Your task to perform on an android device: toggle notifications settings in the gmail app Image 0: 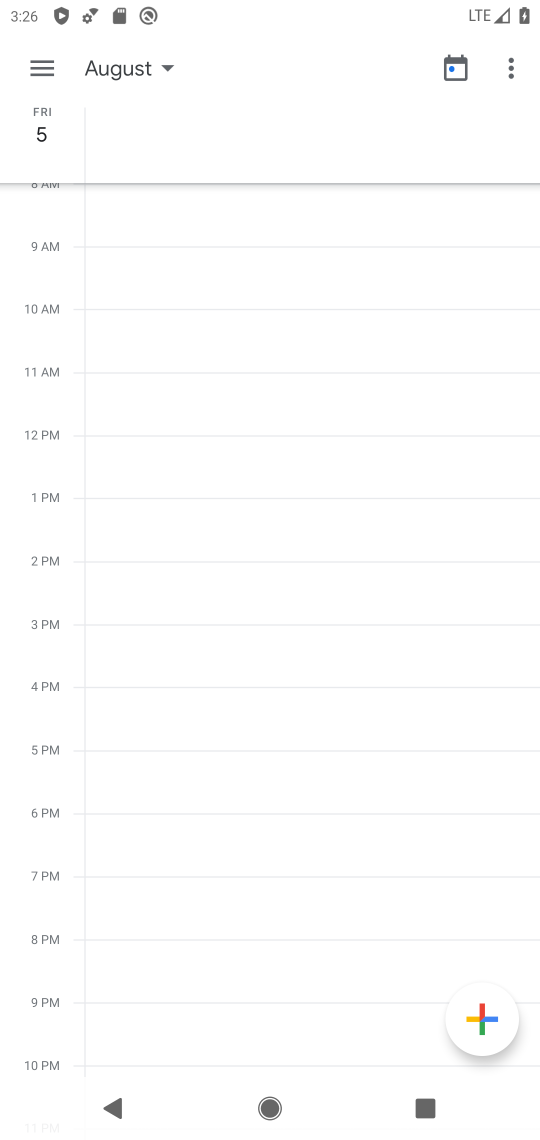
Step 0: press home button
Your task to perform on an android device: toggle notifications settings in the gmail app Image 1: 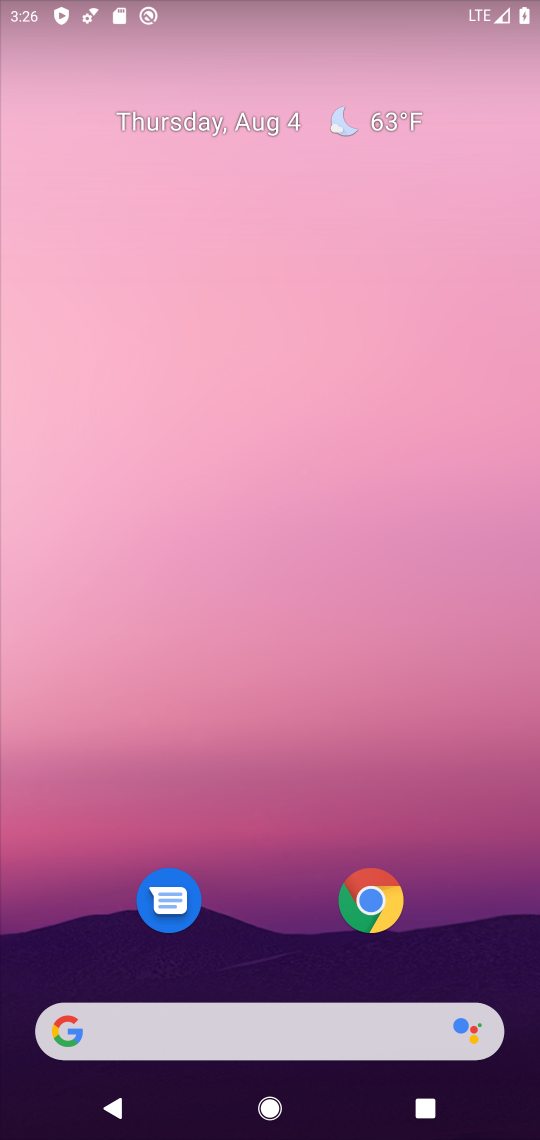
Step 1: drag from (483, 942) to (399, 4)
Your task to perform on an android device: toggle notifications settings in the gmail app Image 2: 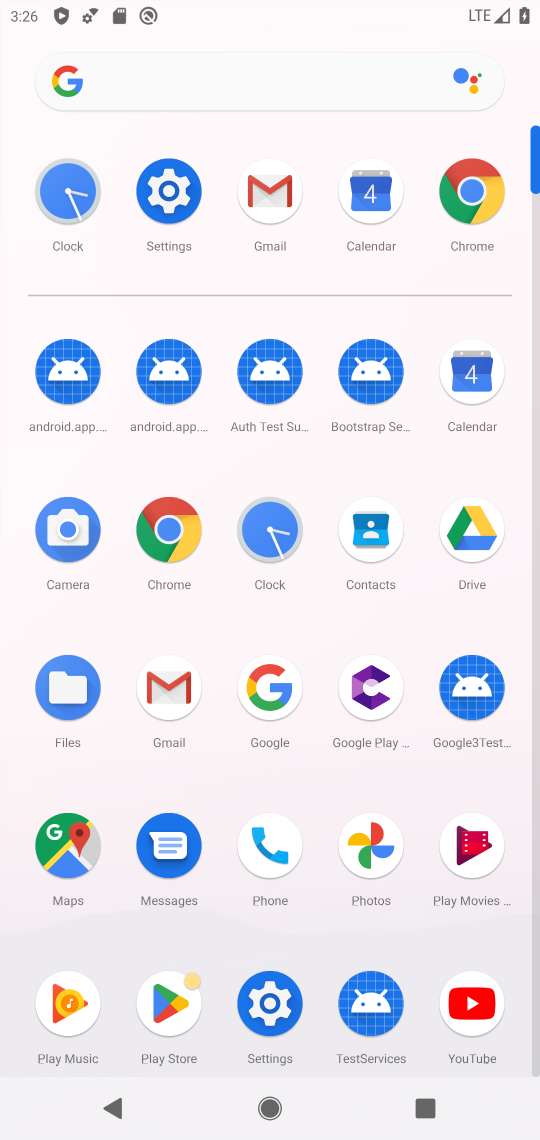
Step 2: click (263, 214)
Your task to perform on an android device: toggle notifications settings in the gmail app Image 3: 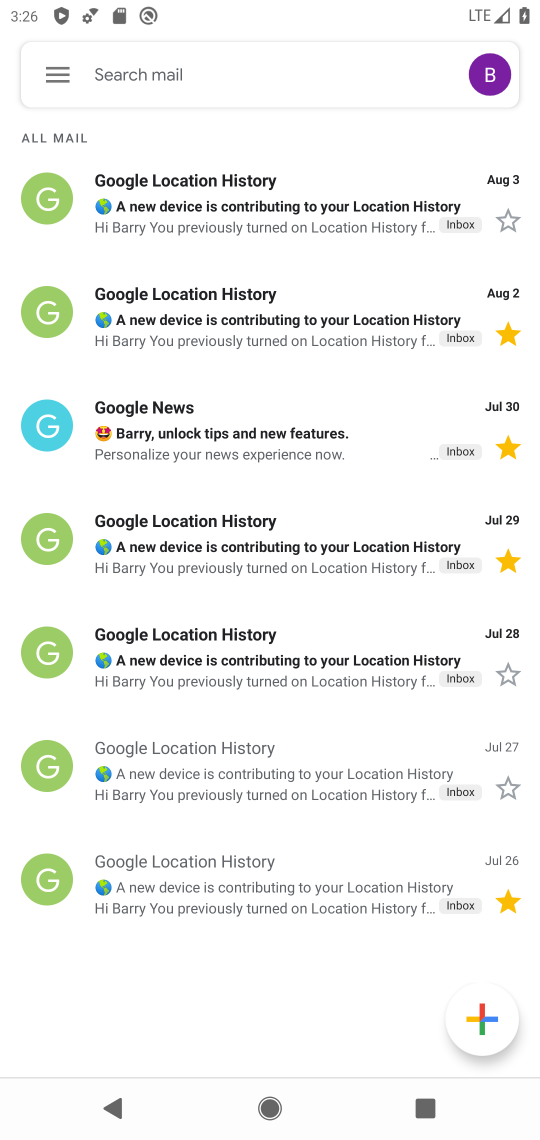
Step 3: click (56, 74)
Your task to perform on an android device: toggle notifications settings in the gmail app Image 4: 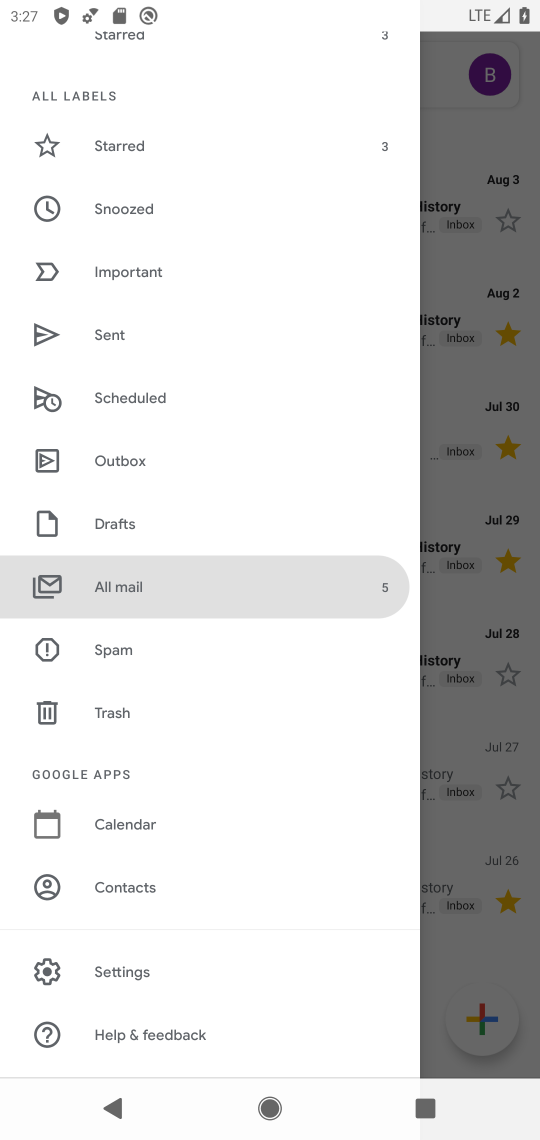
Step 4: click (137, 980)
Your task to perform on an android device: toggle notifications settings in the gmail app Image 5: 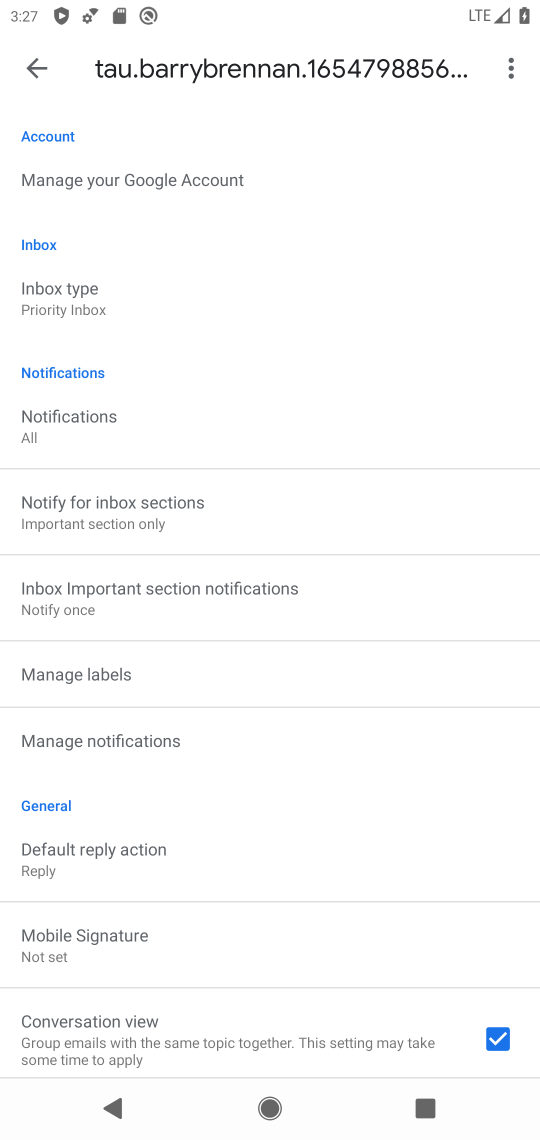
Step 5: click (240, 736)
Your task to perform on an android device: toggle notifications settings in the gmail app Image 6: 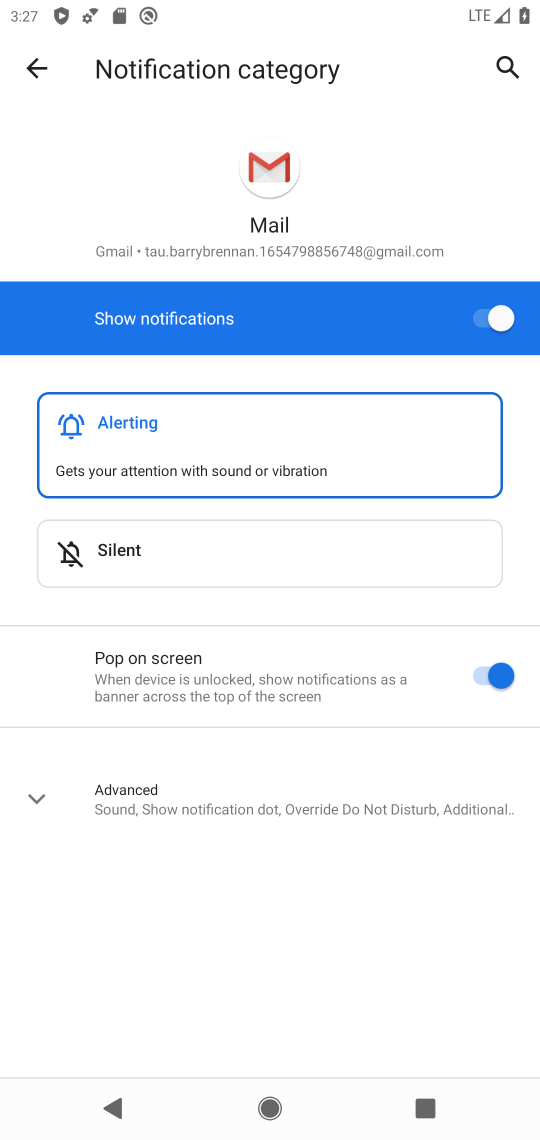
Step 6: click (352, 790)
Your task to perform on an android device: toggle notifications settings in the gmail app Image 7: 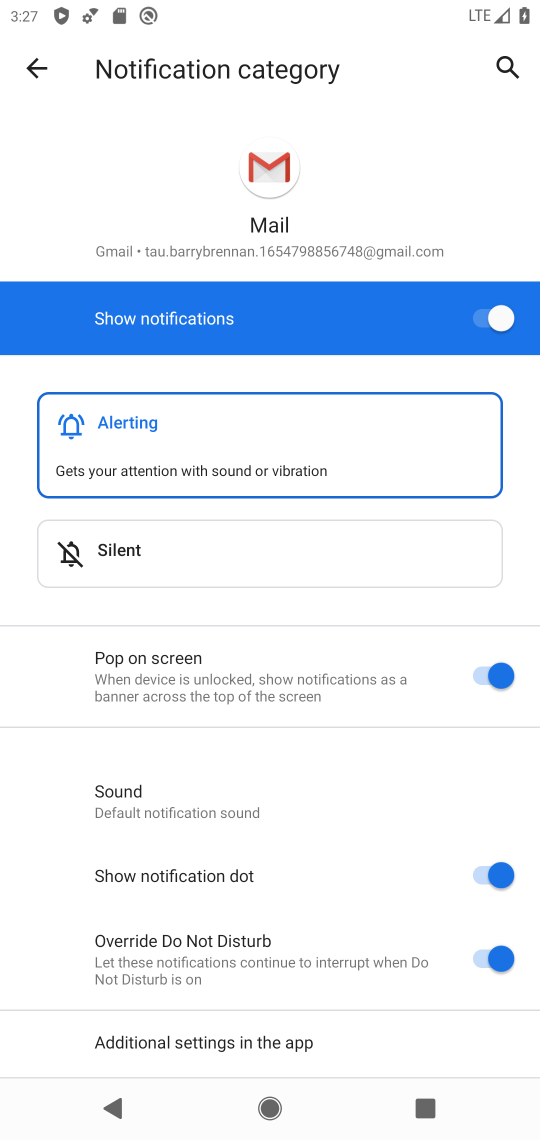
Step 7: drag from (401, 862) to (324, 168)
Your task to perform on an android device: toggle notifications settings in the gmail app Image 8: 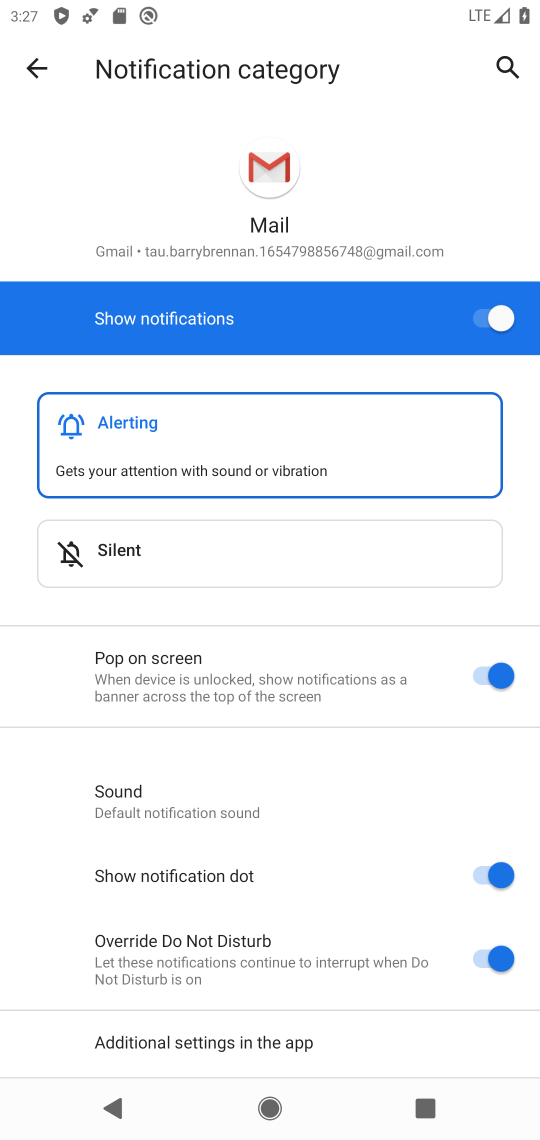
Step 8: click (493, 951)
Your task to perform on an android device: toggle notifications settings in the gmail app Image 9: 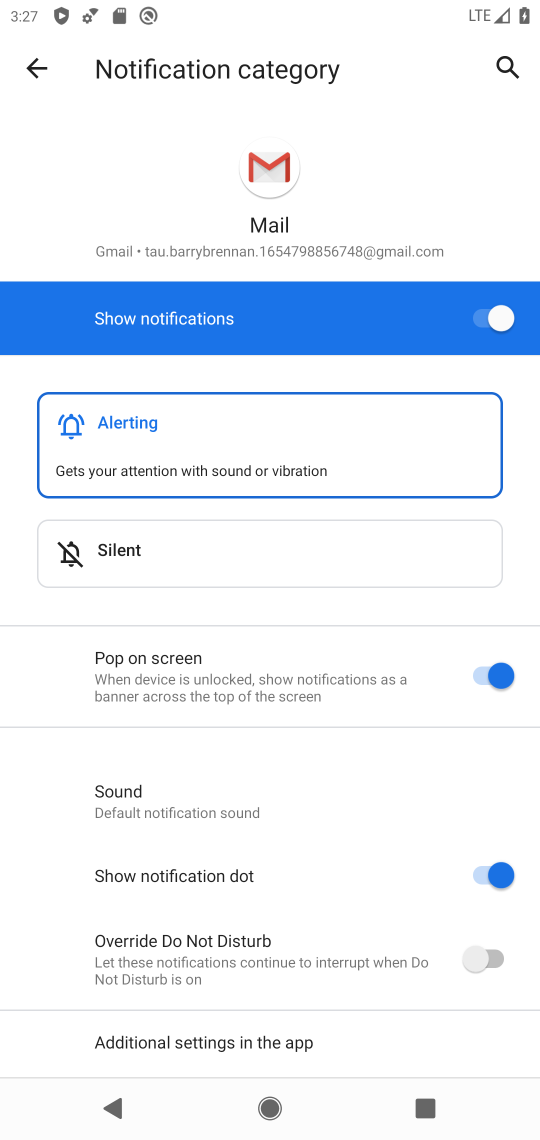
Step 9: click (491, 877)
Your task to perform on an android device: toggle notifications settings in the gmail app Image 10: 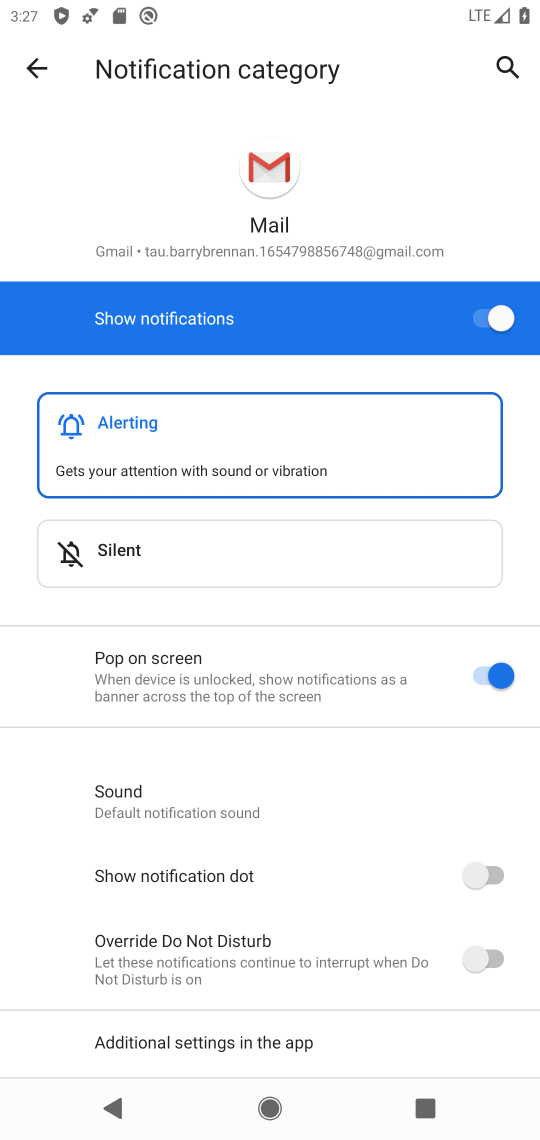
Step 10: click (490, 682)
Your task to perform on an android device: toggle notifications settings in the gmail app Image 11: 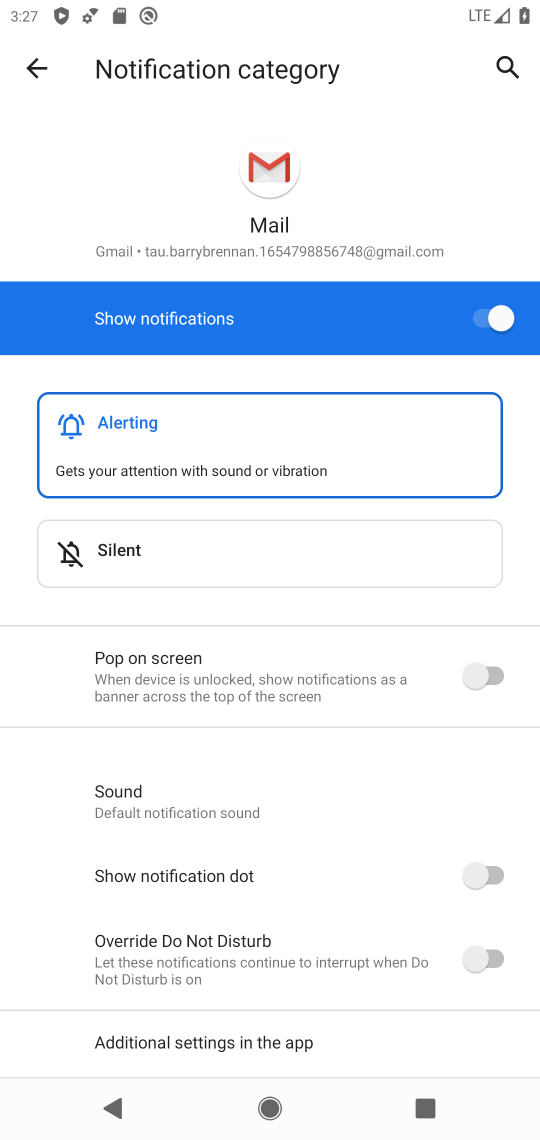
Step 11: task complete